Your task to perform on an android device: turn on javascript in the chrome app Image 0: 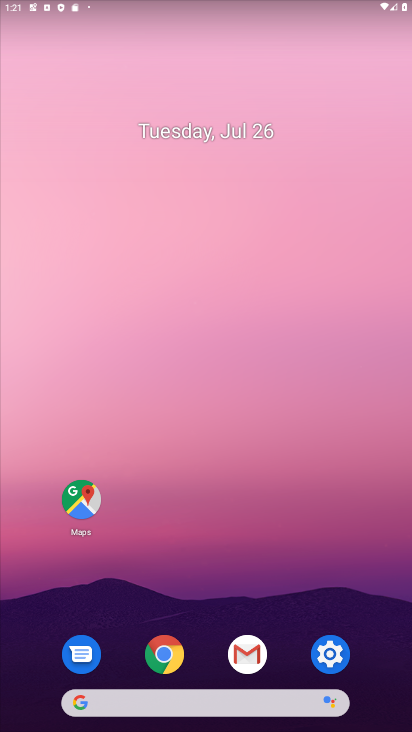
Step 0: click (161, 654)
Your task to perform on an android device: turn on javascript in the chrome app Image 1: 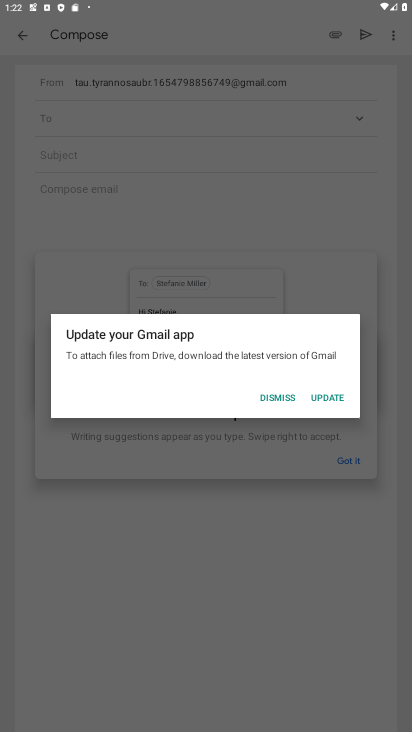
Step 1: press home button
Your task to perform on an android device: turn on javascript in the chrome app Image 2: 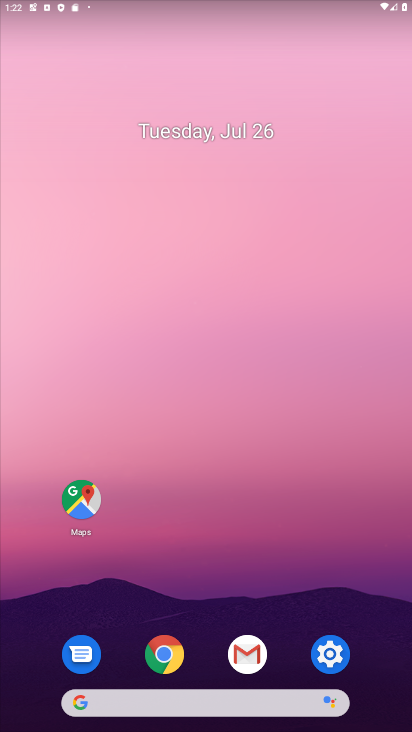
Step 2: click (164, 653)
Your task to perform on an android device: turn on javascript in the chrome app Image 3: 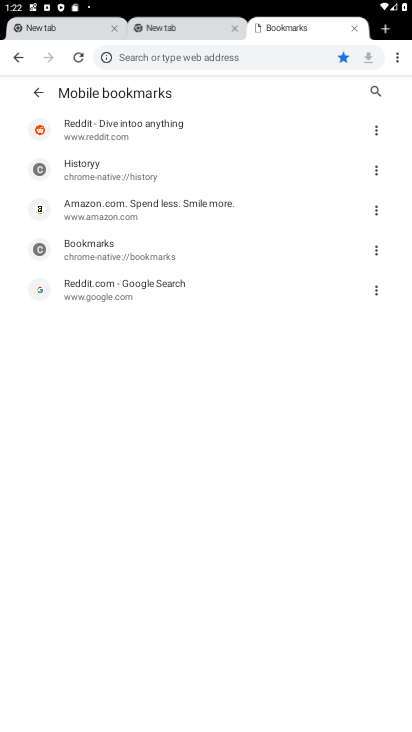
Step 3: click (398, 65)
Your task to perform on an android device: turn on javascript in the chrome app Image 4: 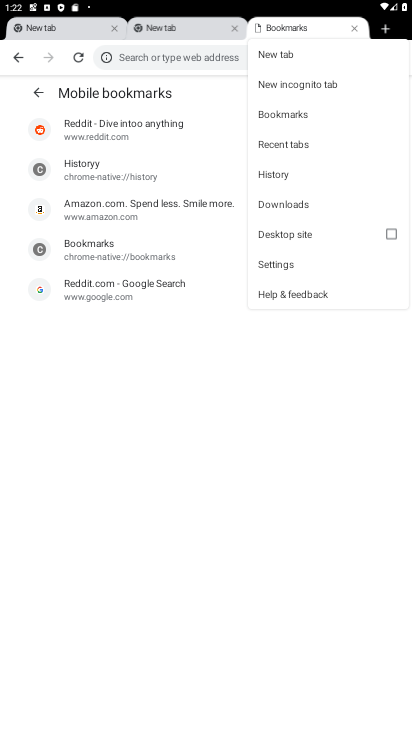
Step 4: click (291, 266)
Your task to perform on an android device: turn on javascript in the chrome app Image 5: 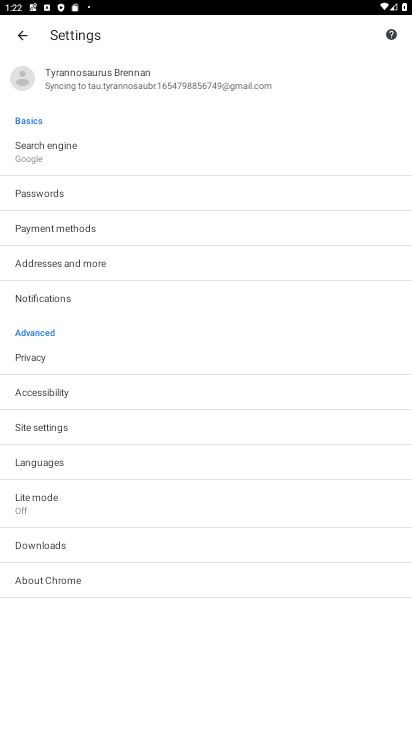
Step 5: click (53, 423)
Your task to perform on an android device: turn on javascript in the chrome app Image 6: 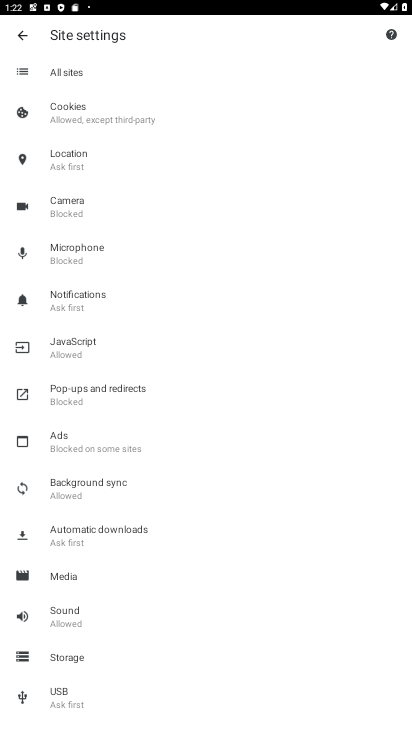
Step 6: click (84, 348)
Your task to perform on an android device: turn on javascript in the chrome app Image 7: 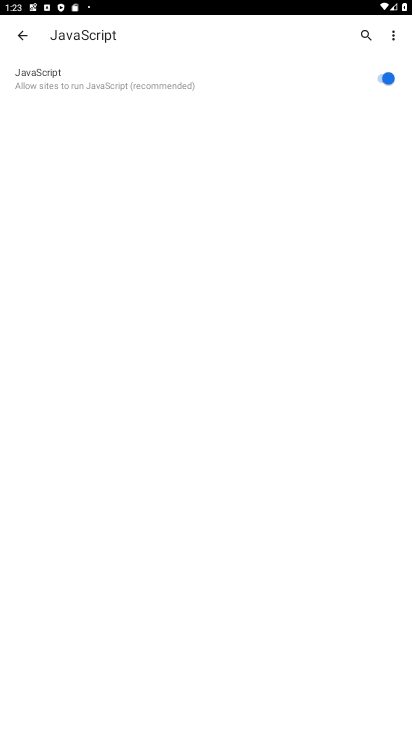
Step 7: task complete